Your task to perform on an android device: What is the speed of a skateboard? Image 0: 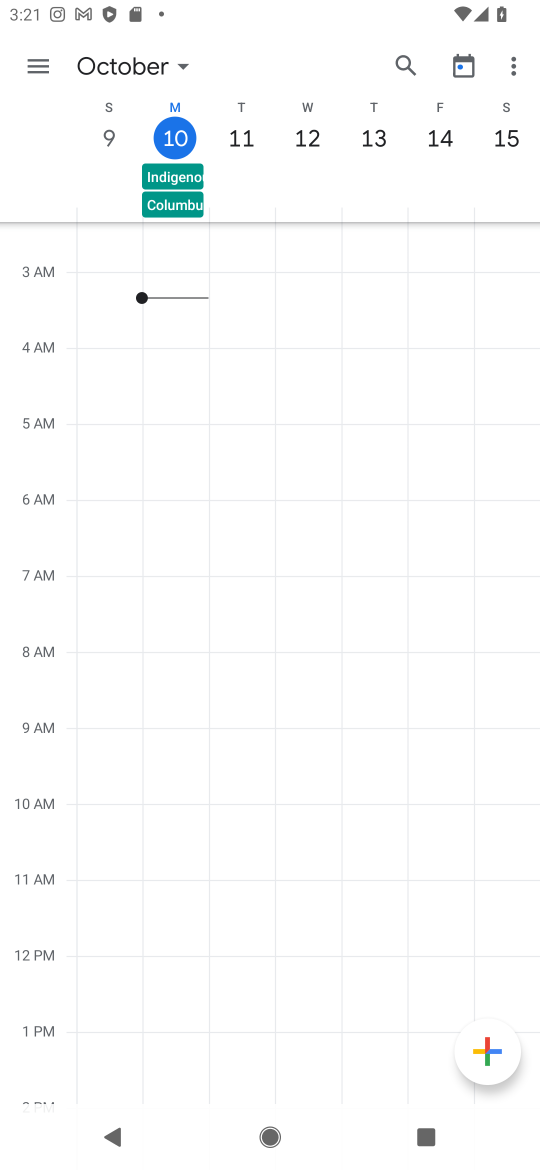
Step 0: press home button
Your task to perform on an android device: What is the speed of a skateboard? Image 1: 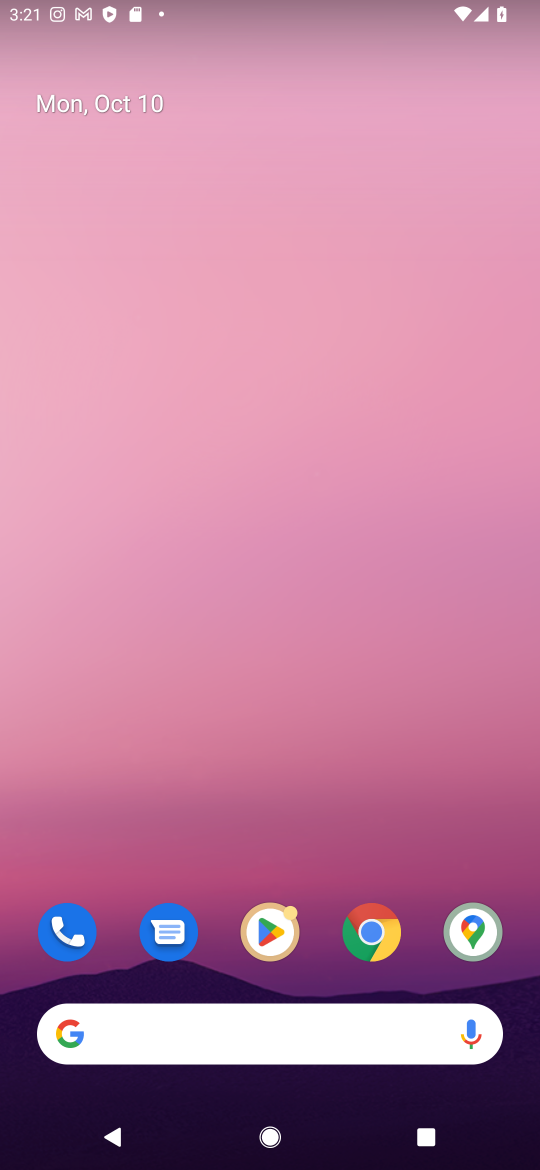
Step 1: click (288, 1045)
Your task to perform on an android device: What is the speed of a skateboard? Image 2: 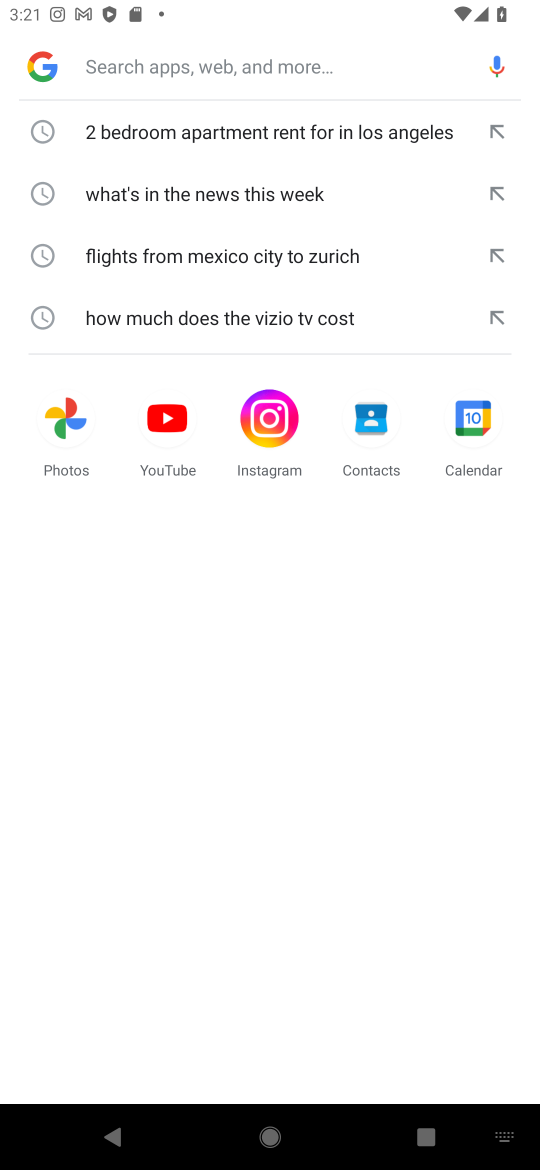
Step 2: type "What is the speed of a skateboard"
Your task to perform on an android device: What is the speed of a skateboard? Image 3: 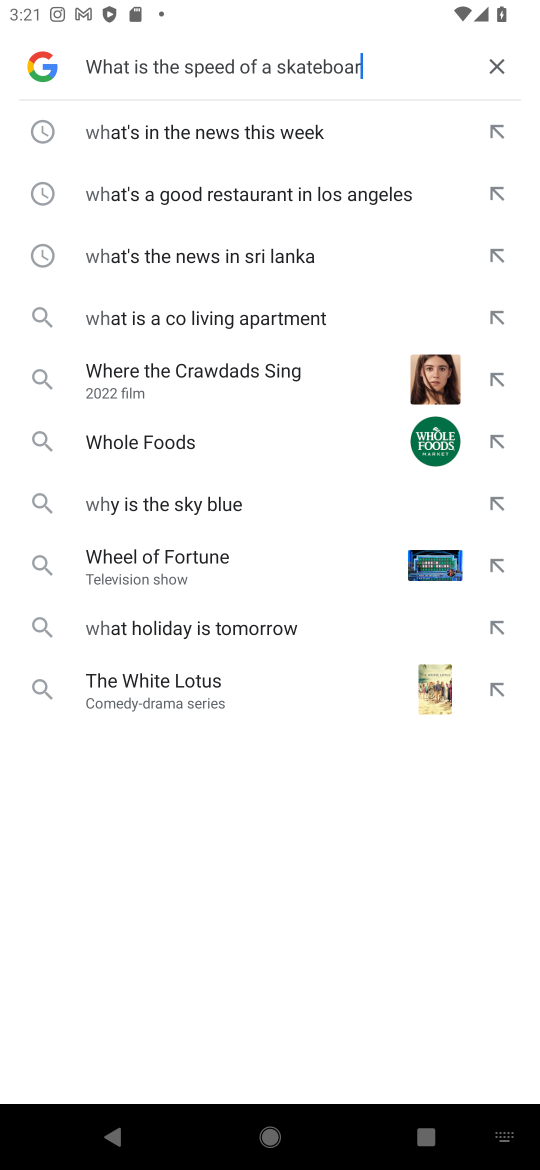
Step 3: press enter
Your task to perform on an android device: What is the speed of a skateboard? Image 4: 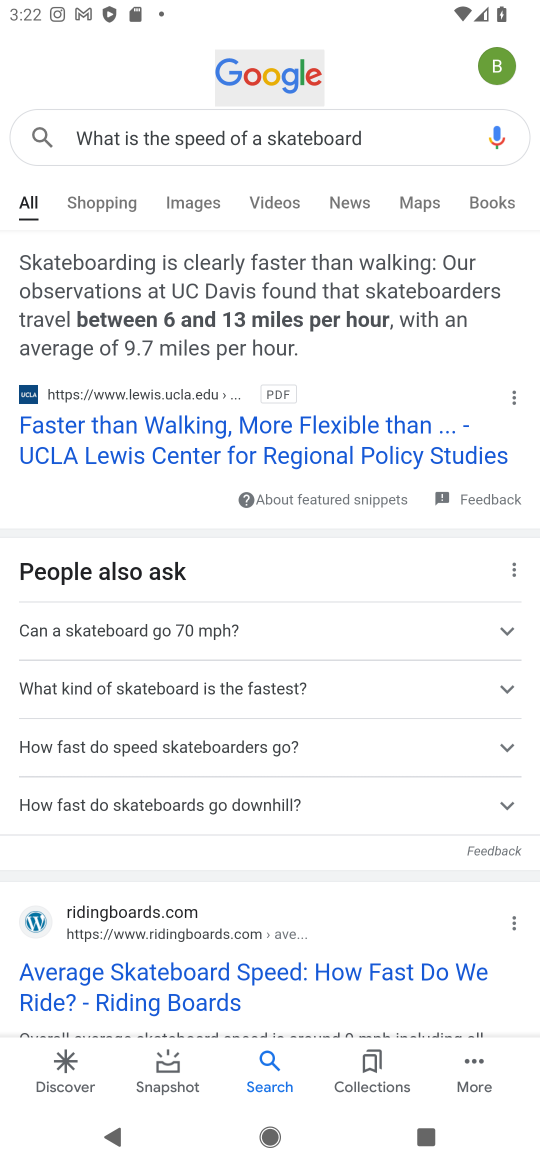
Step 4: task complete